Your task to perform on an android device: open app "DoorDash - Food Delivery" (install if not already installed) Image 0: 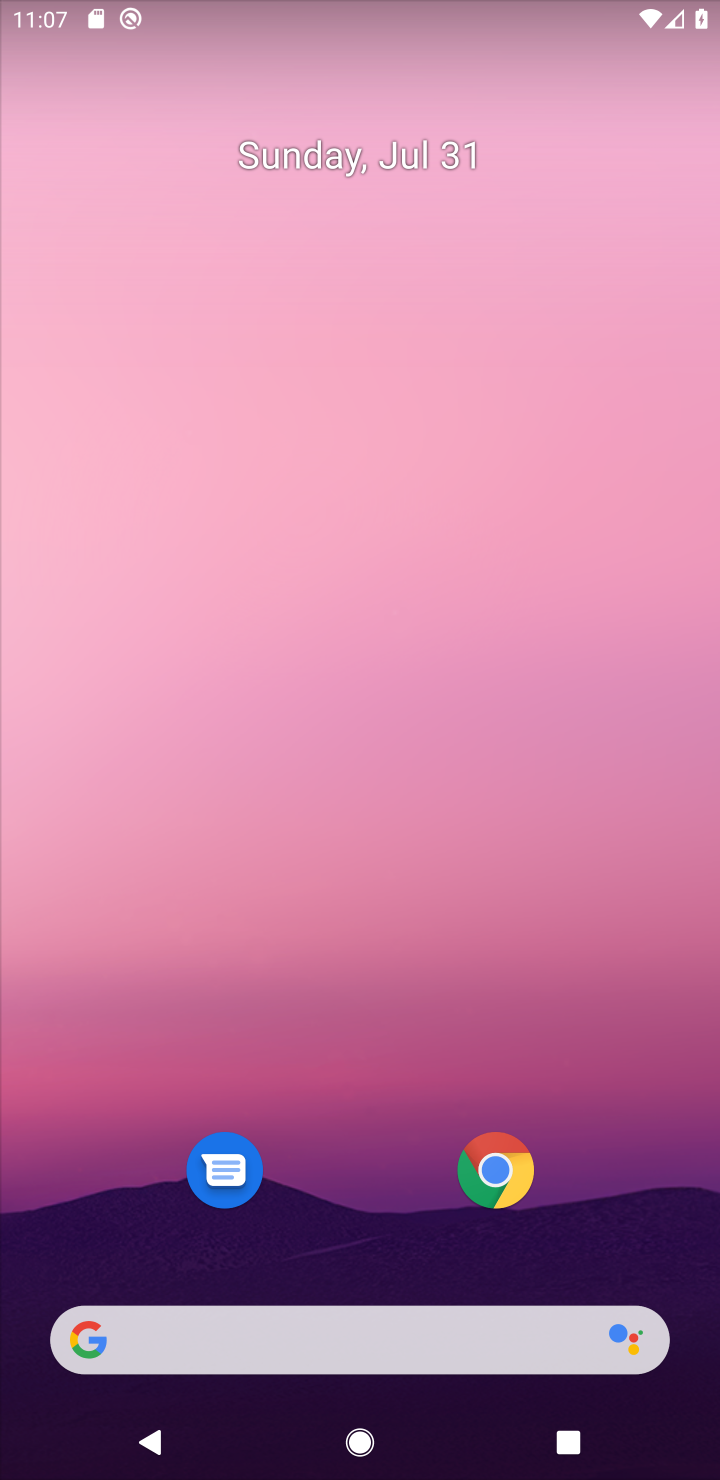
Step 0: drag from (666, 1210) to (544, 29)
Your task to perform on an android device: open app "DoorDash - Food Delivery" (install if not already installed) Image 1: 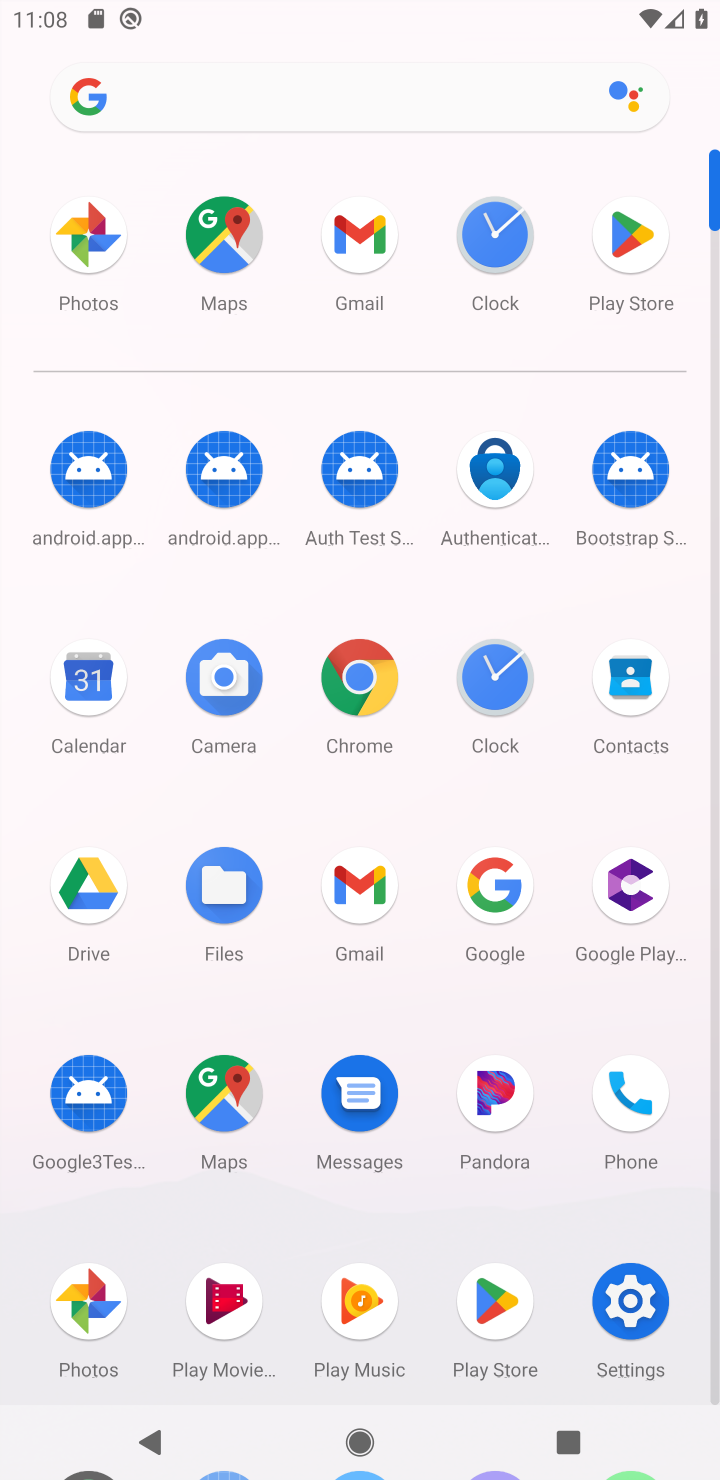
Step 1: click (629, 252)
Your task to perform on an android device: open app "DoorDash - Food Delivery" (install if not already installed) Image 2: 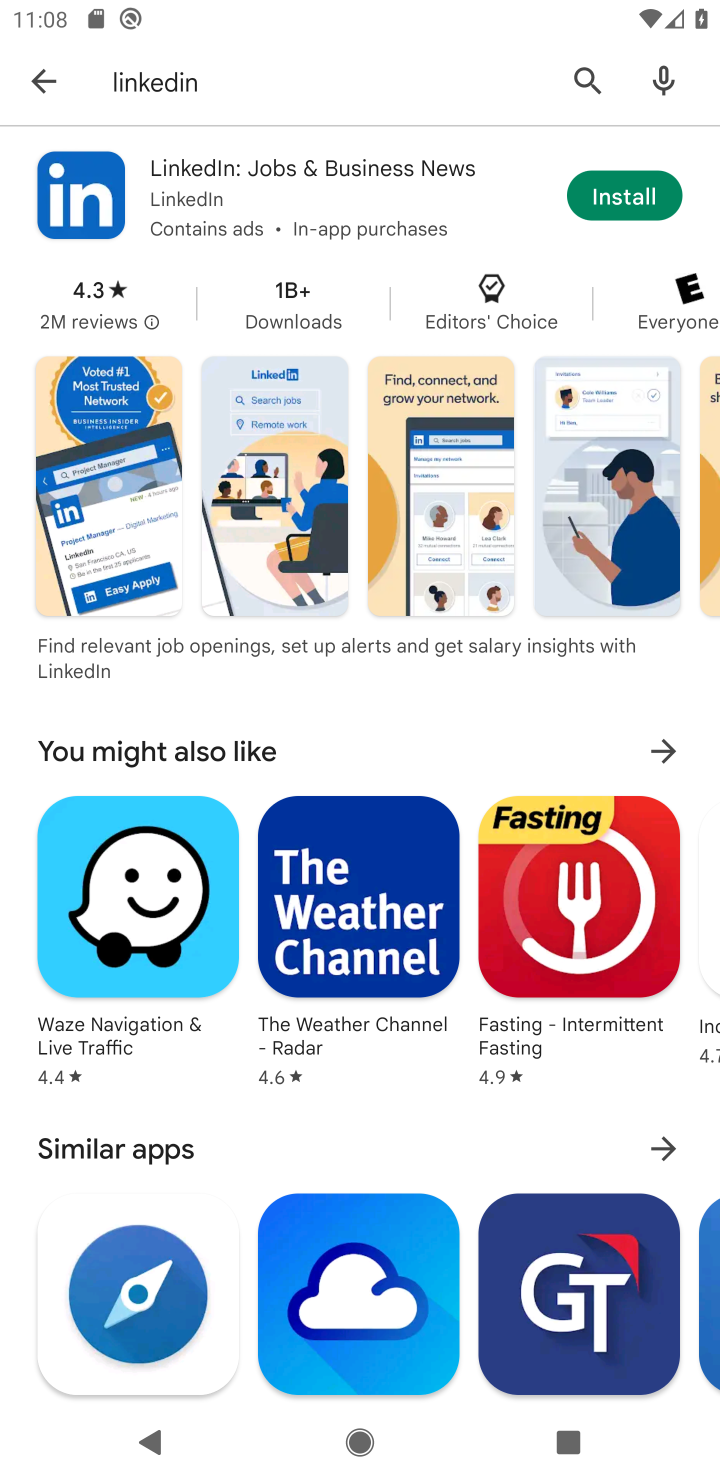
Step 2: press back button
Your task to perform on an android device: open app "DoorDash - Food Delivery" (install if not already installed) Image 3: 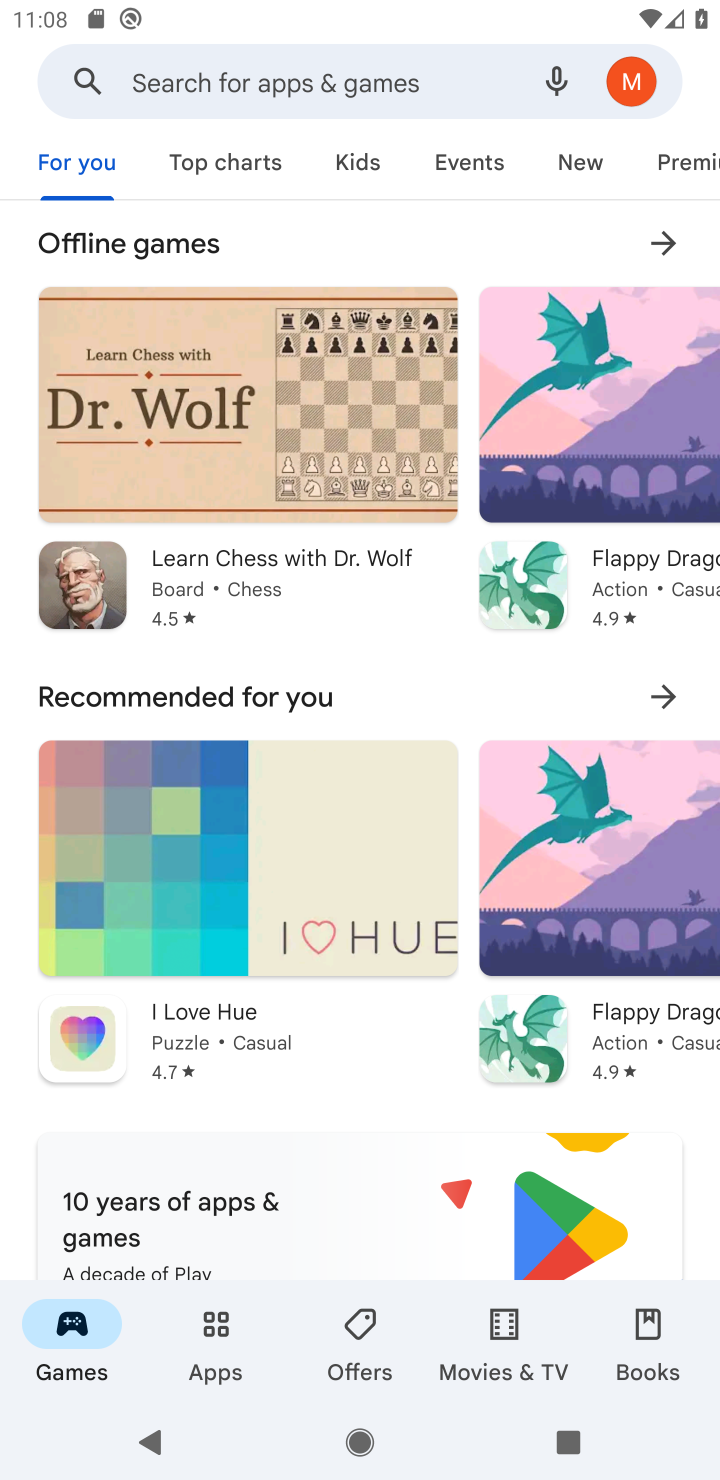
Step 3: click (187, 88)
Your task to perform on an android device: open app "DoorDash - Food Delivery" (install if not already installed) Image 4: 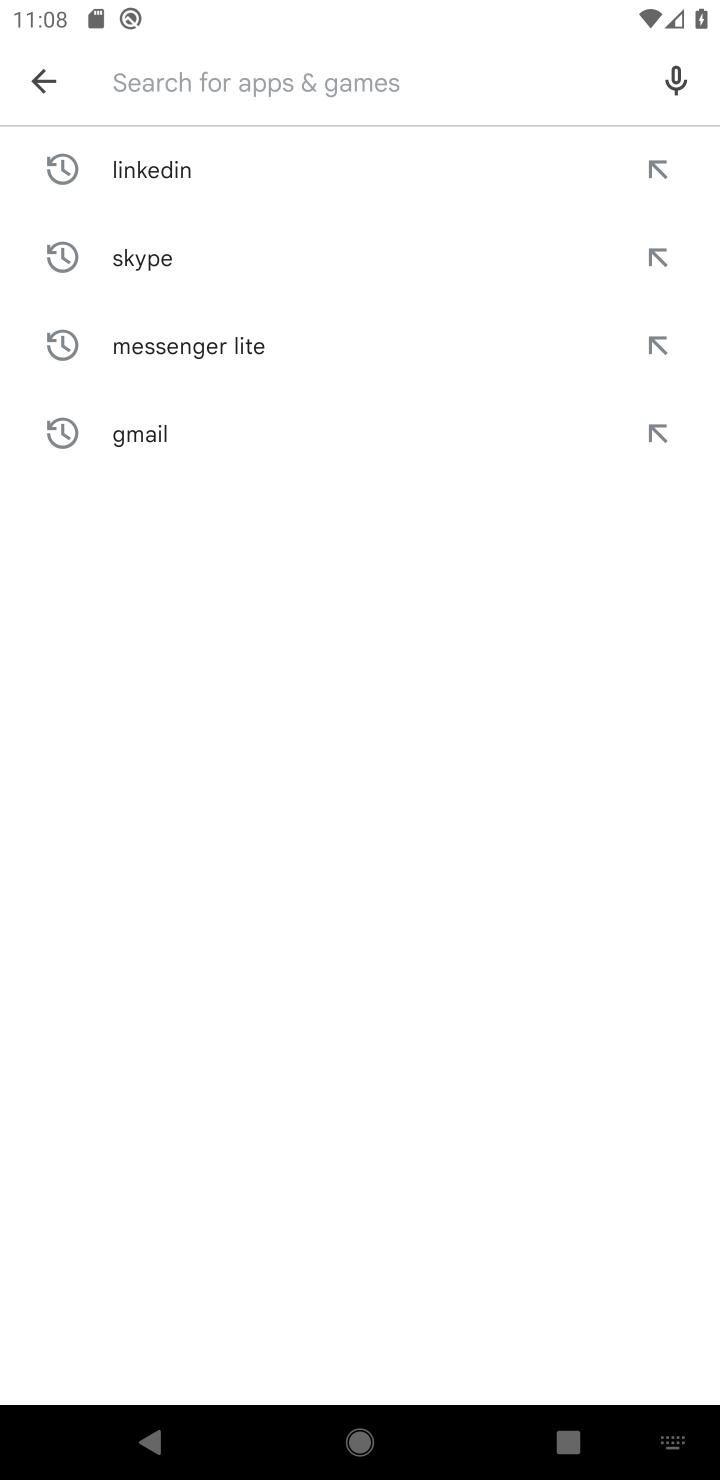
Step 4: type "DoorDash - Food Delivery"
Your task to perform on an android device: open app "DoorDash - Food Delivery" (install if not already installed) Image 5: 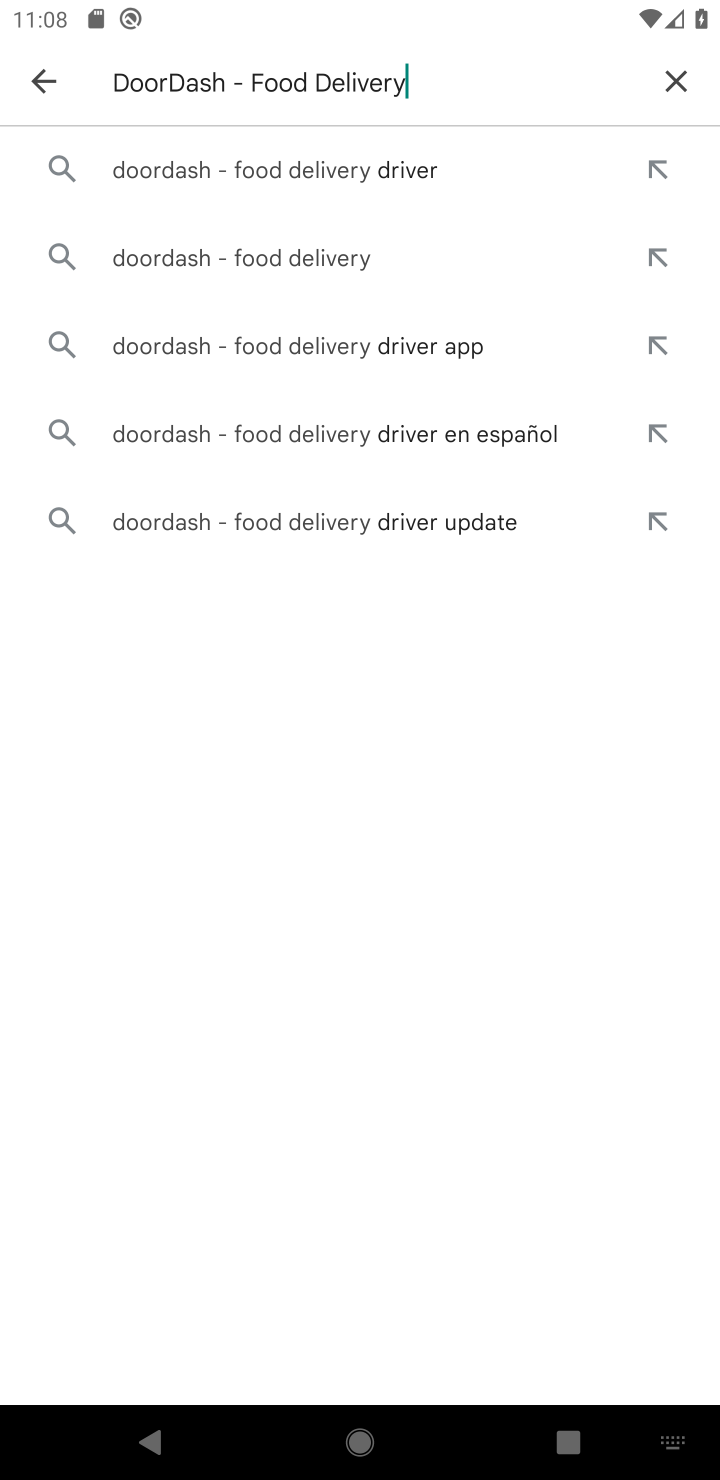
Step 5: click (146, 172)
Your task to perform on an android device: open app "DoorDash - Food Delivery" (install if not already installed) Image 6: 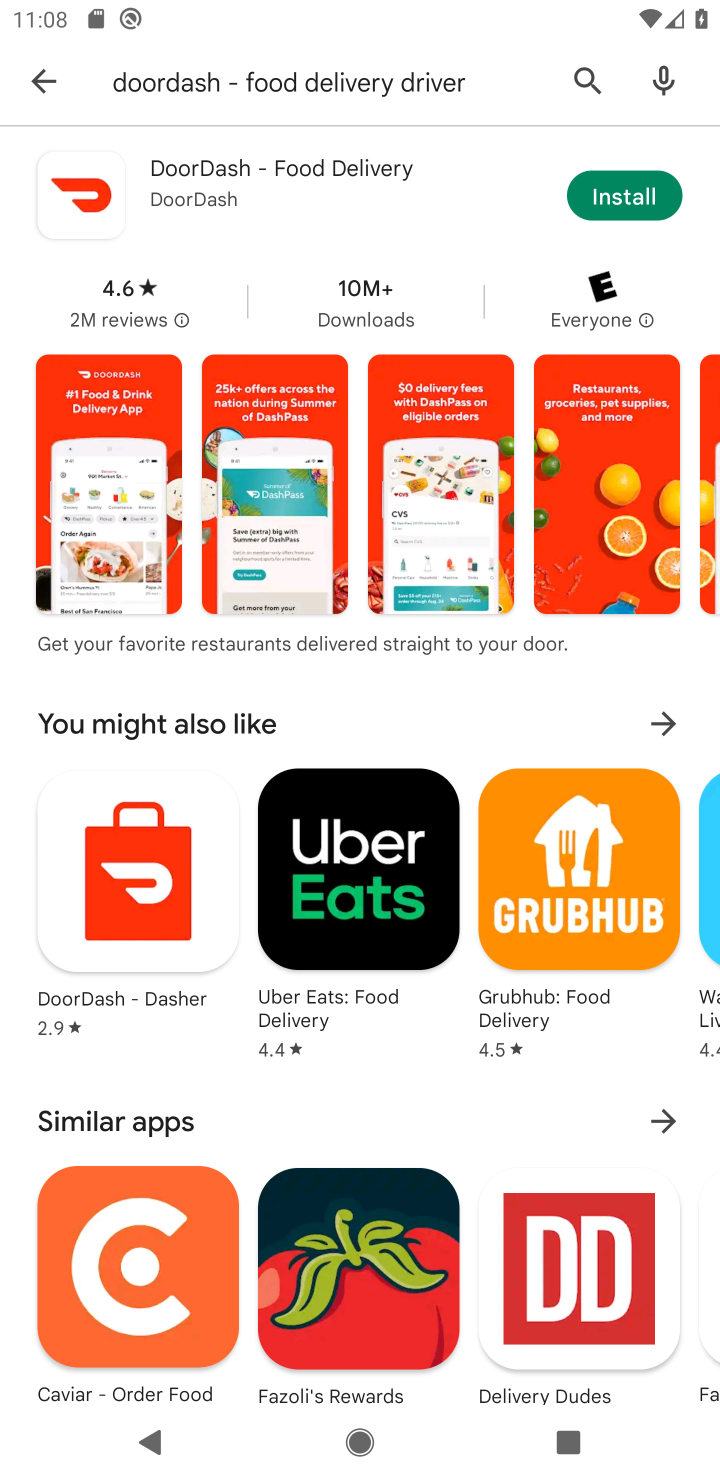
Step 6: task complete